Your task to perform on an android device: Clear all items from cart on costco. Image 0: 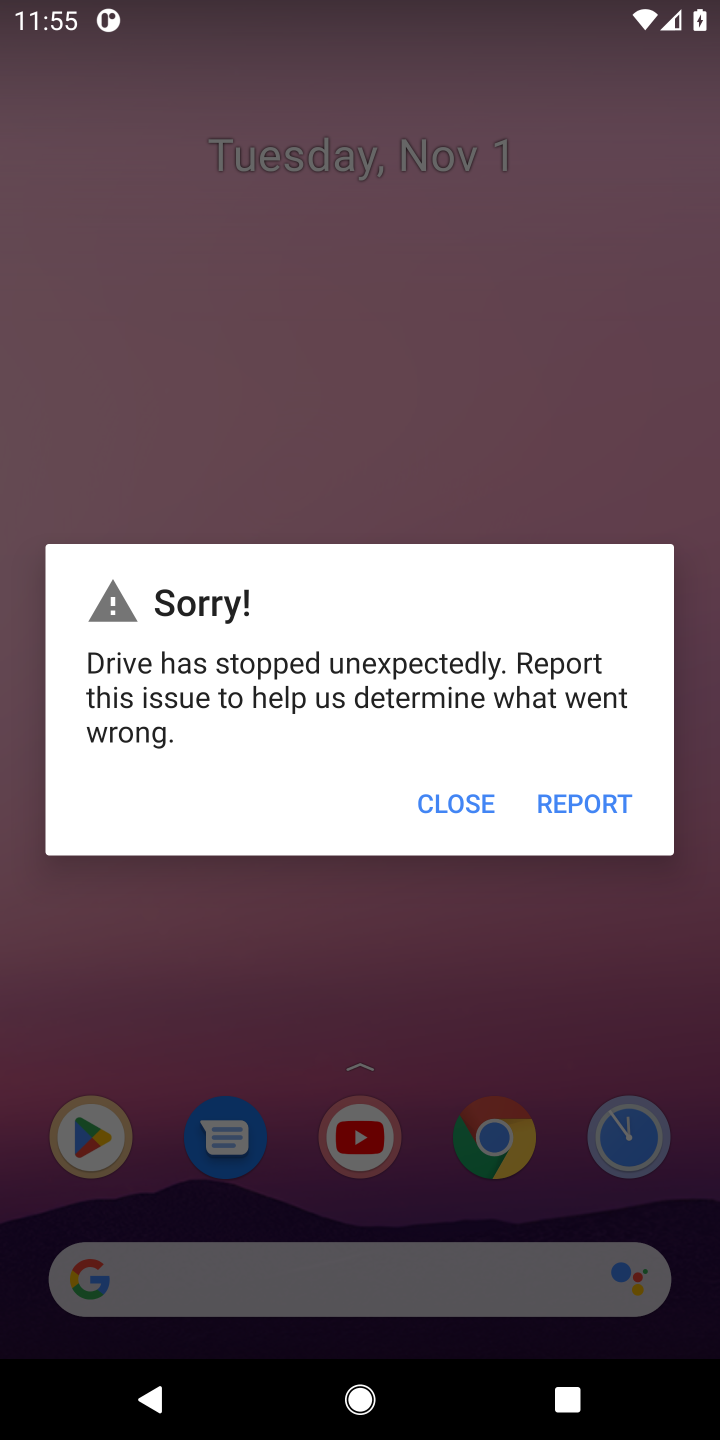
Step 0: press home button
Your task to perform on an android device: Clear all items from cart on costco. Image 1: 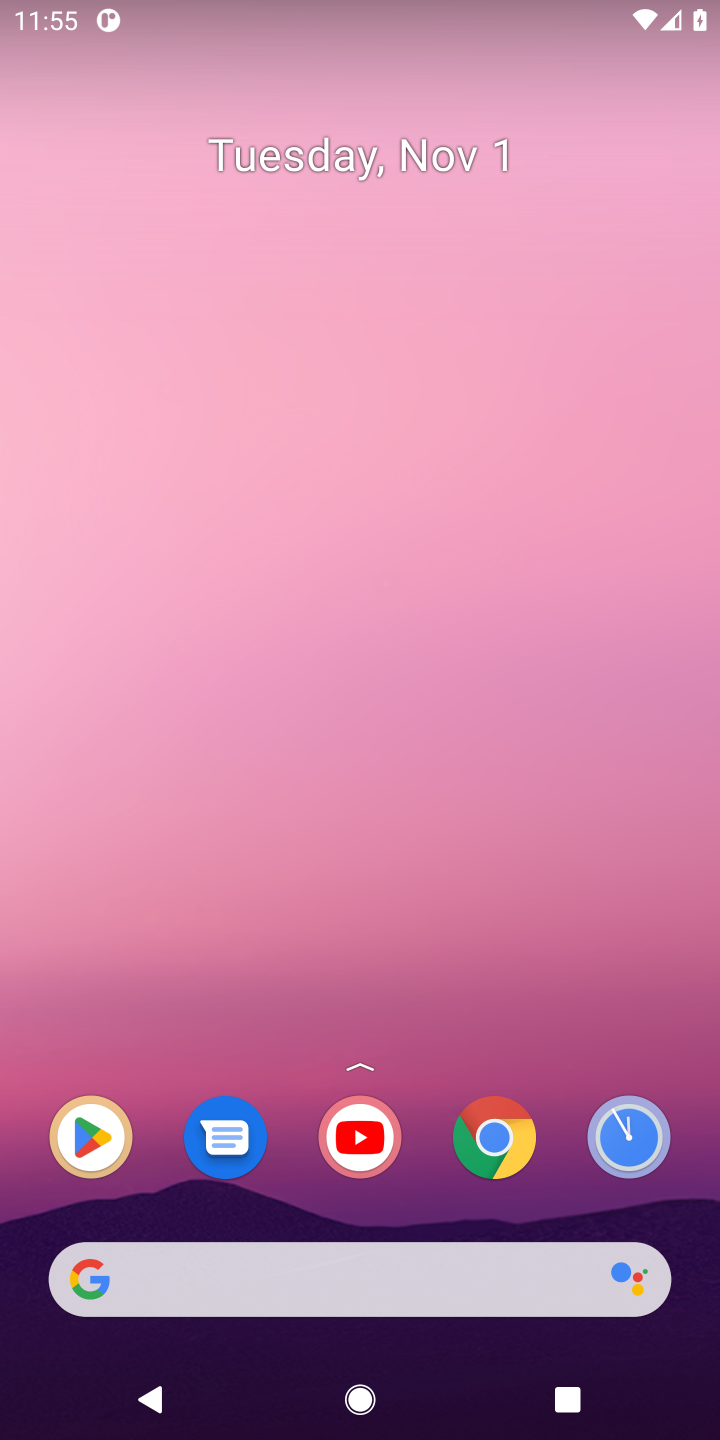
Step 1: press home button
Your task to perform on an android device: Clear all items from cart on costco. Image 2: 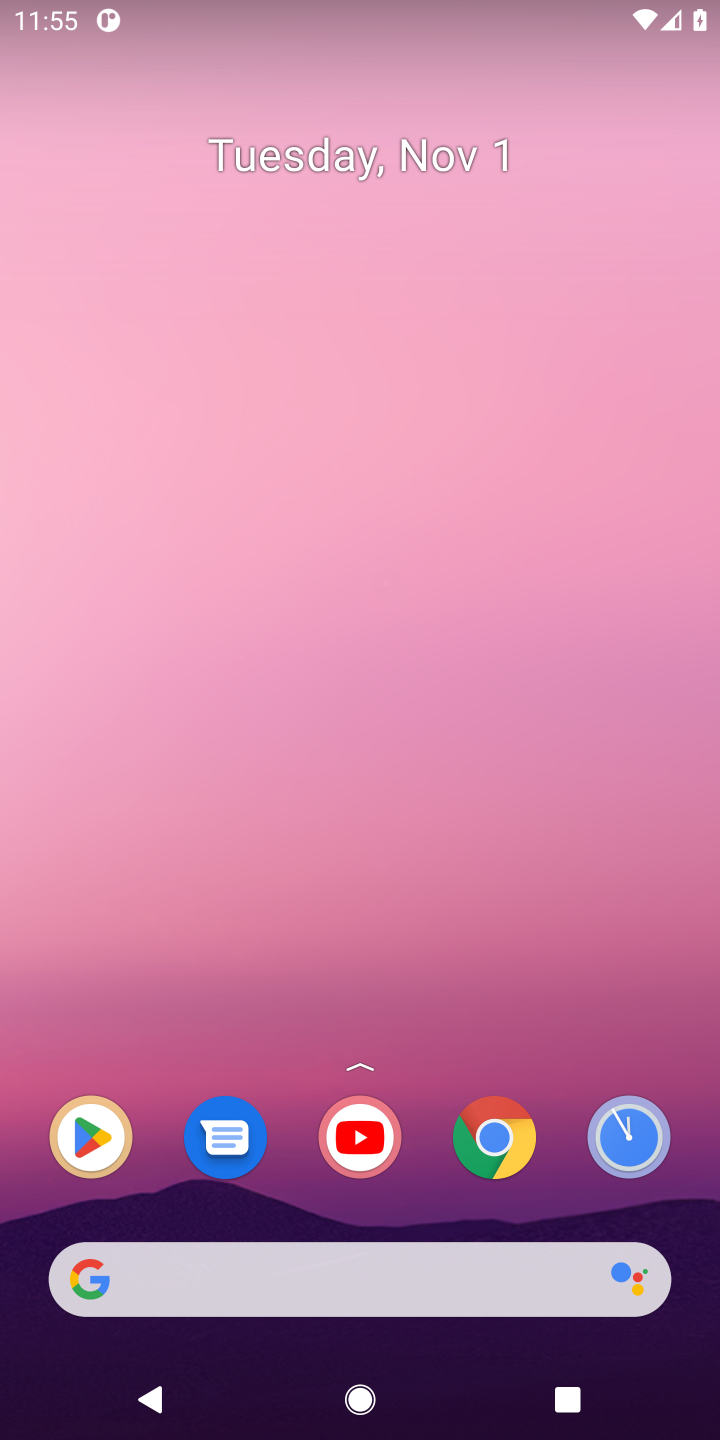
Step 2: press home button
Your task to perform on an android device: Clear all items from cart on costco. Image 3: 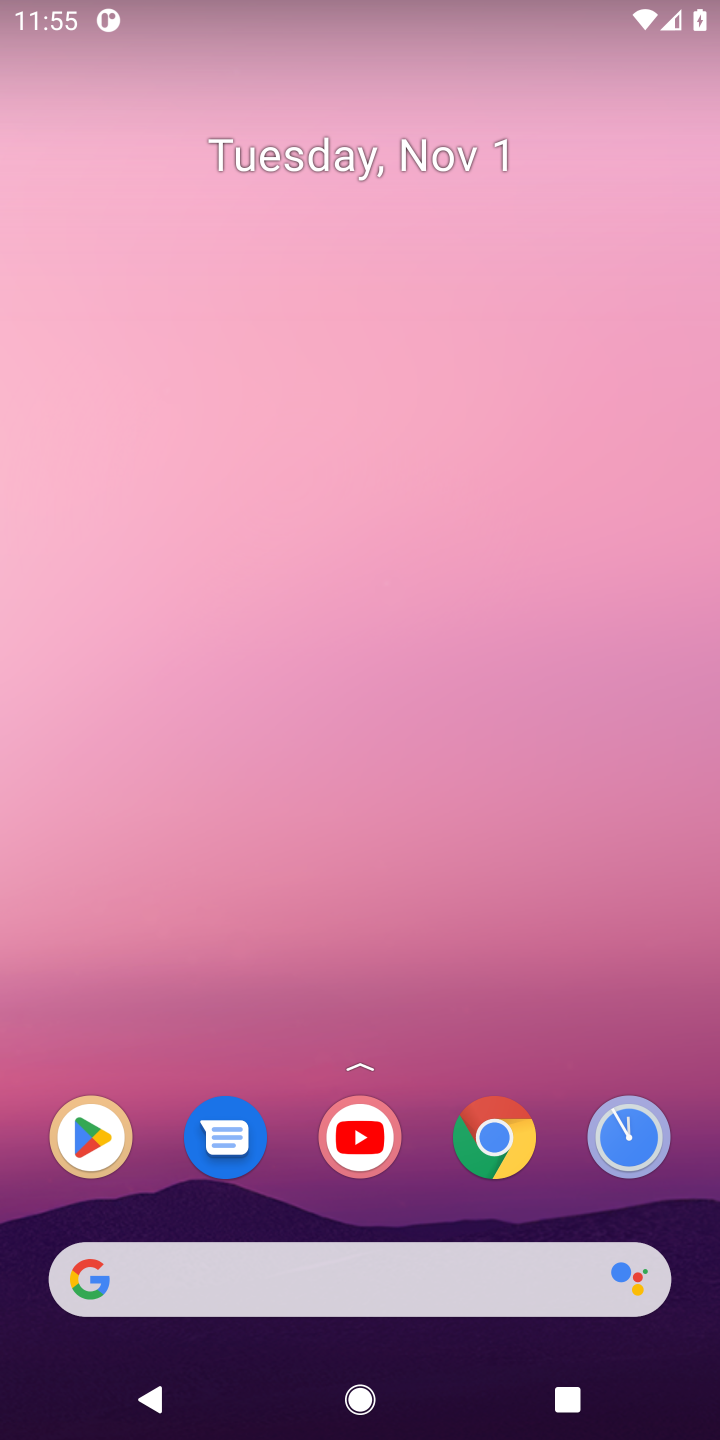
Step 3: press home button
Your task to perform on an android device: Clear all items from cart on costco. Image 4: 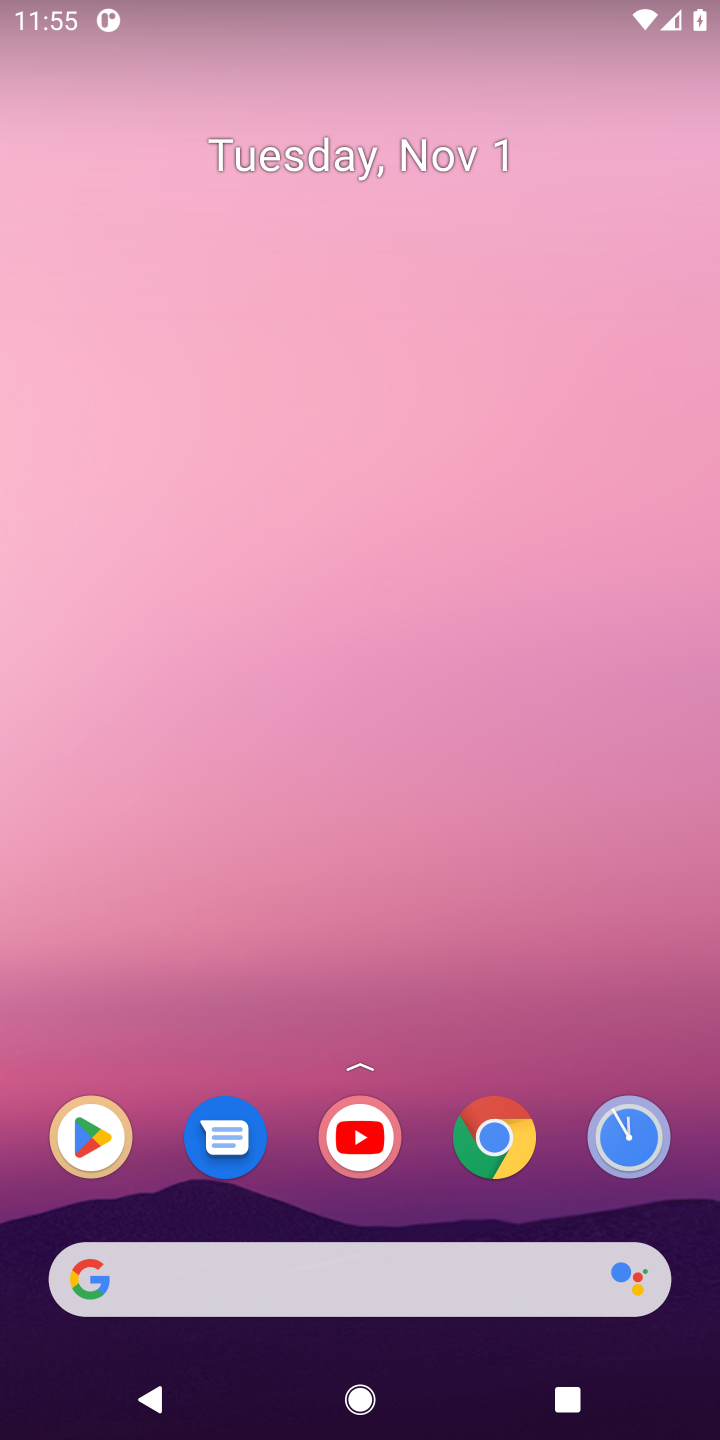
Step 4: click (250, 1273)
Your task to perform on an android device: Clear all items from cart on costco. Image 5: 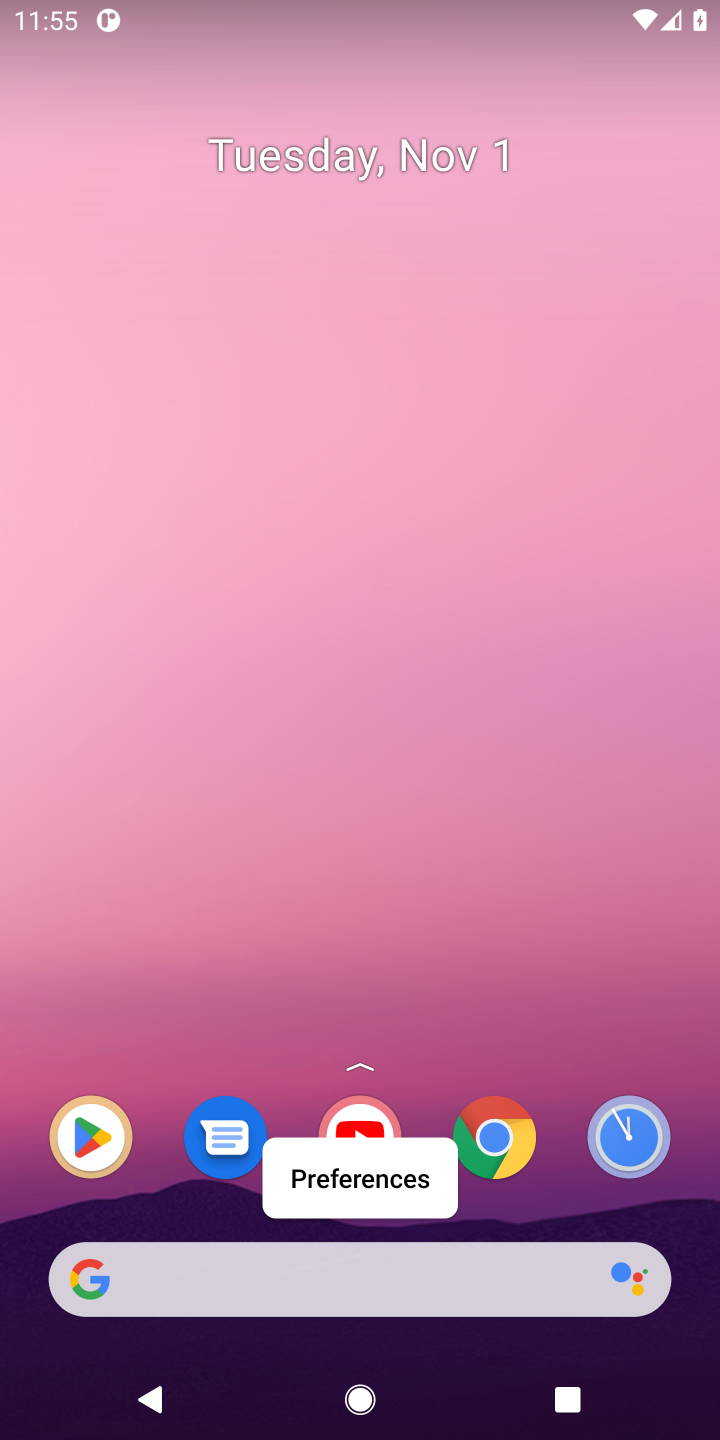
Step 5: click (250, 1273)
Your task to perform on an android device: Clear all items from cart on costco. Image 6: 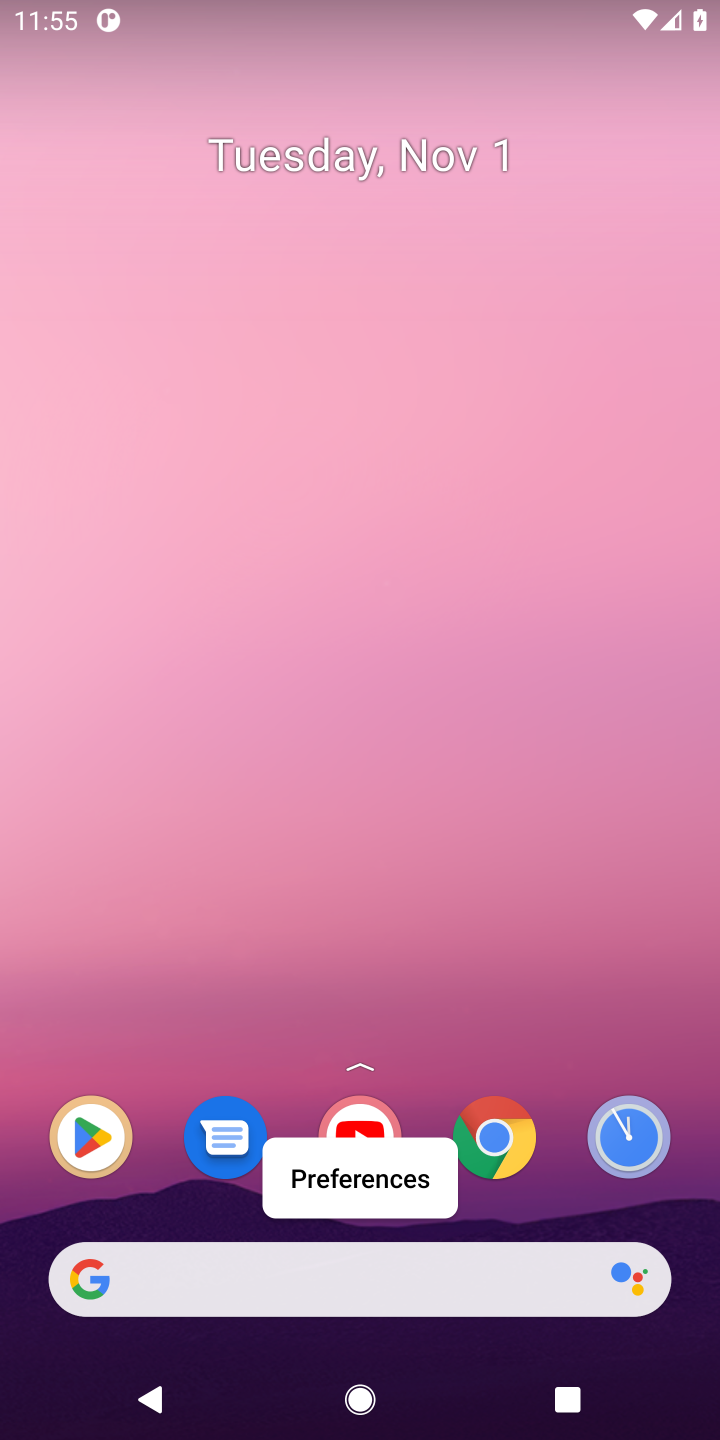
Step 6: click (230, 1263)
Your task to perform on an android device: Clear all items from cart on costco. Image 7: 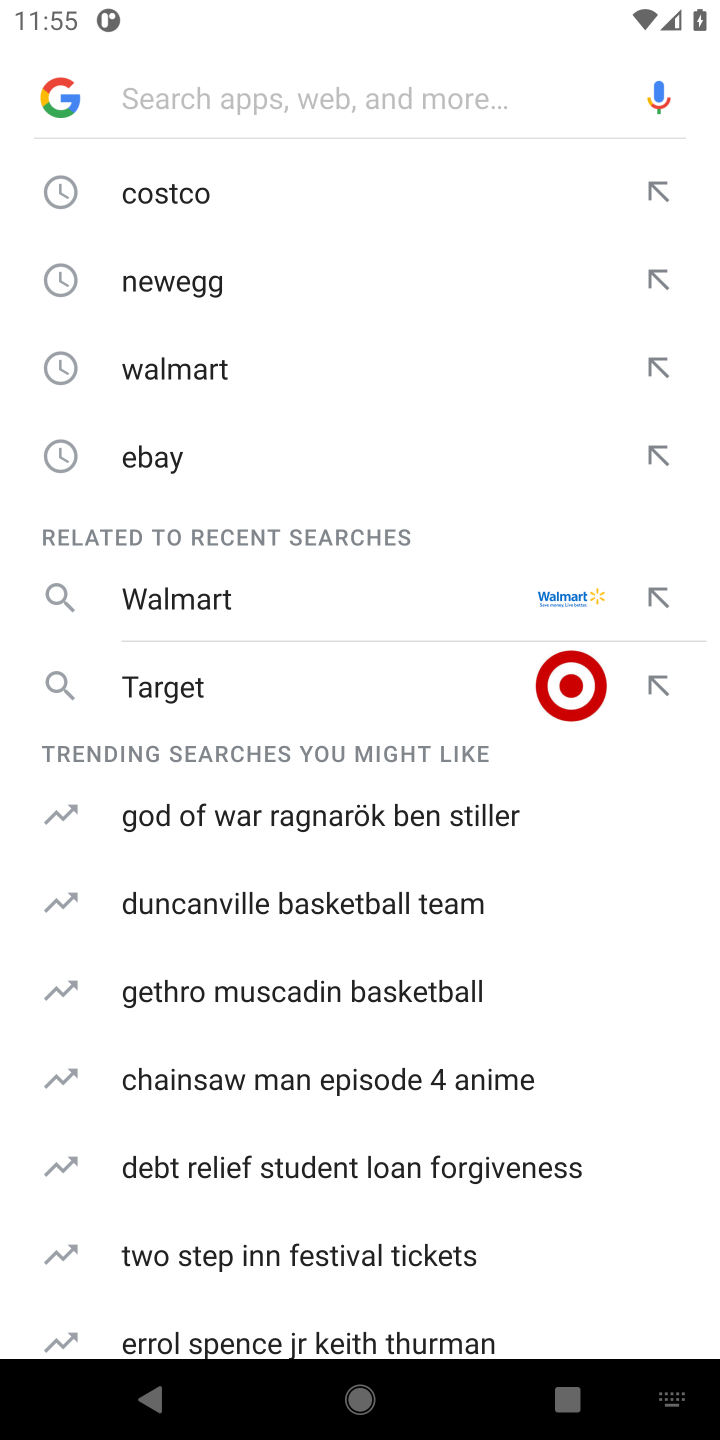
Step 7: click (211, 223)
Your task to perform on an android device: Clear all items from cart on costco. Image 8: 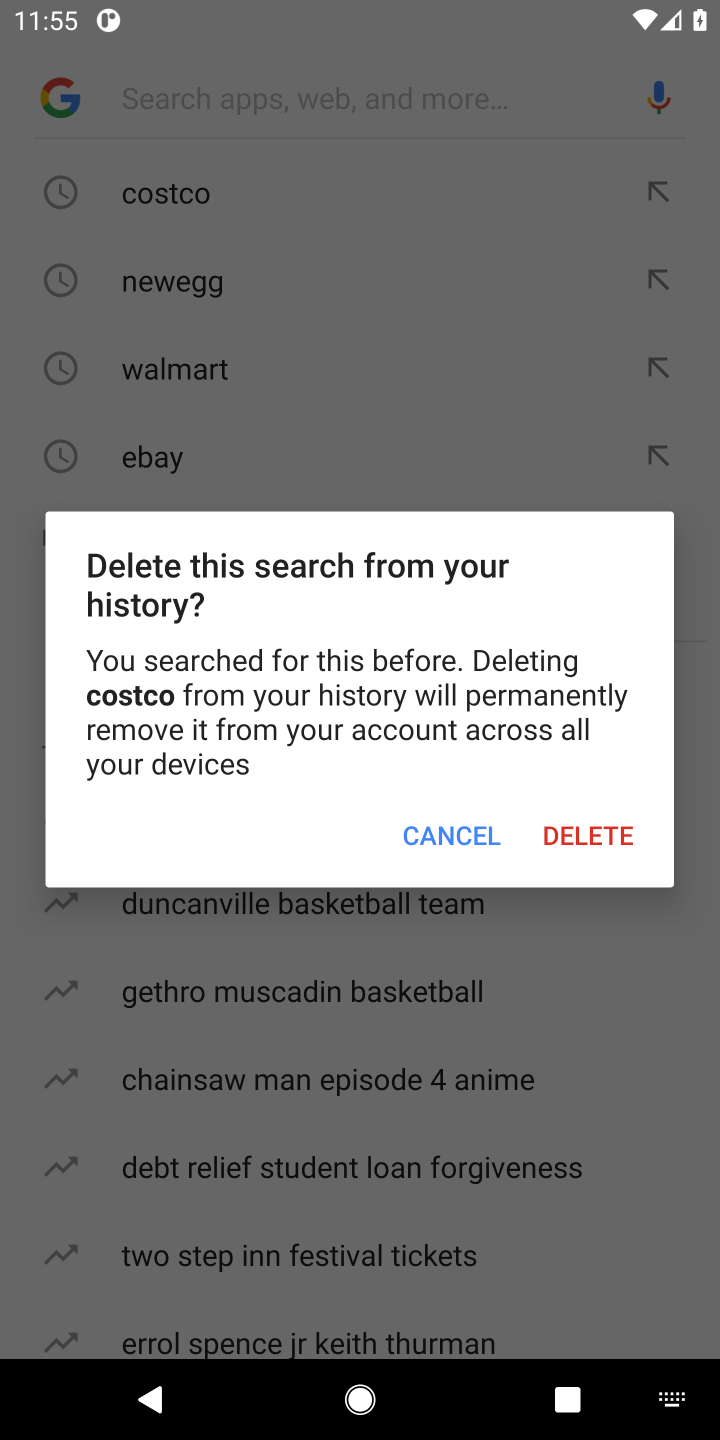
Step 8: click (494, 835)
Your task to perform on an android device: Clear all items from cart on costco. Image 9: 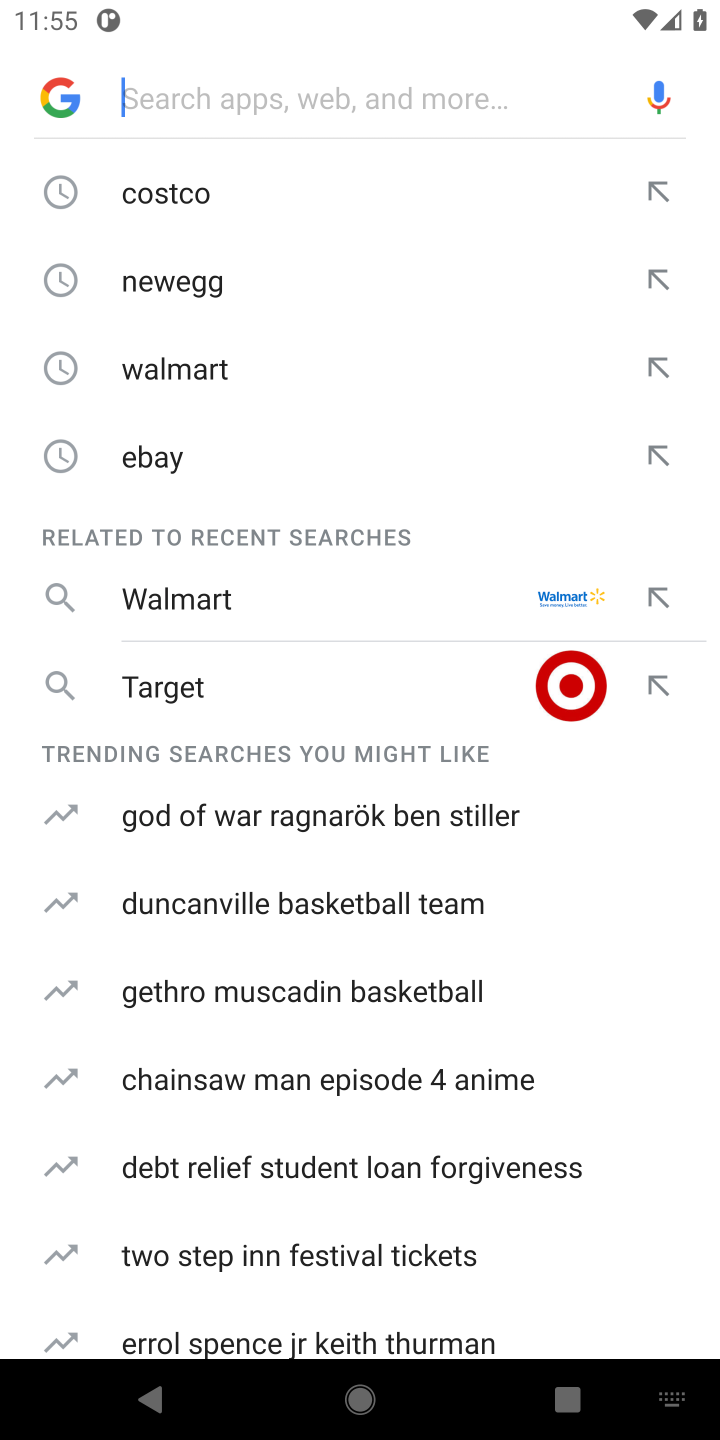
Step 9: click (280, 211)
Your task to perform on an android device: Clear all items from cart on costco. Image 10: 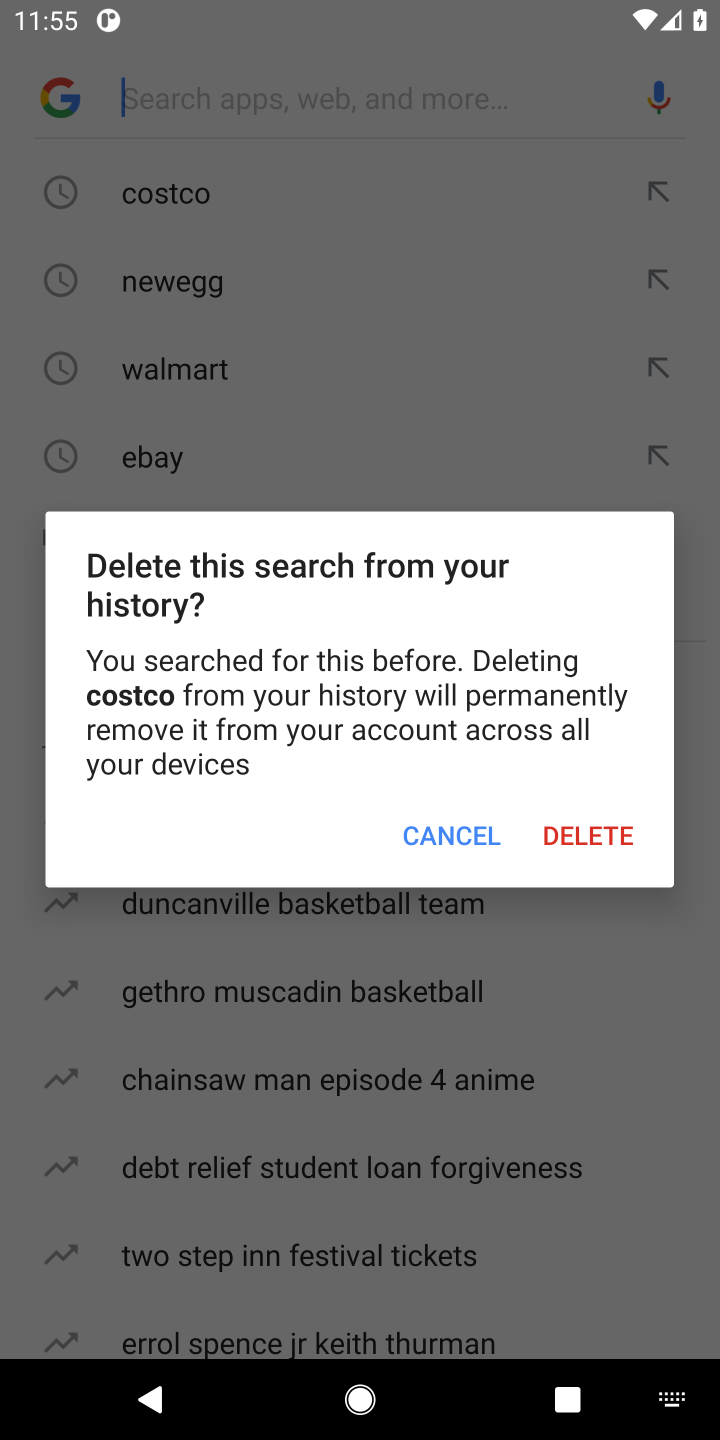
Step 10: click (451, 821)
Your task to perform on an android device: Clear all items from cart on costco. Image 11: 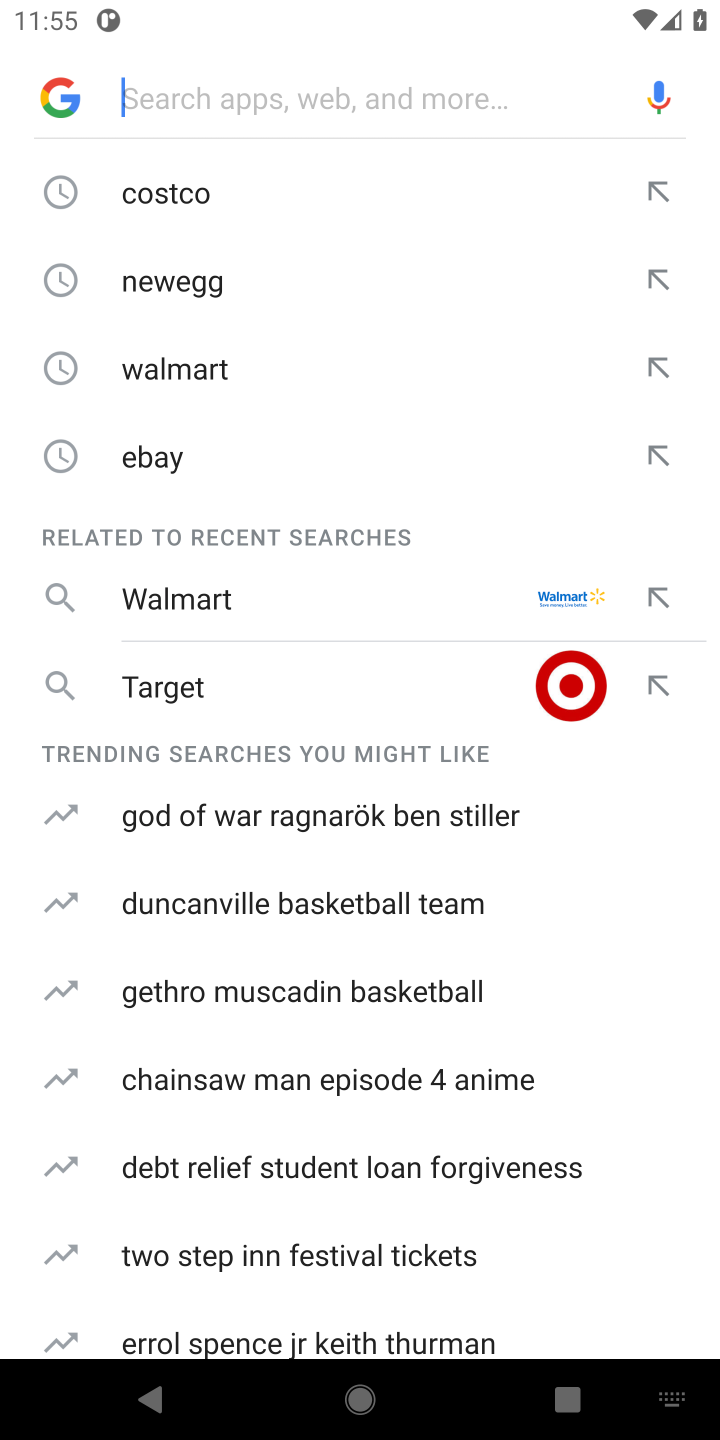
Step 11: type "costco."
Your task to perform on an android device: Clear all items from cart on costco. Image 12: 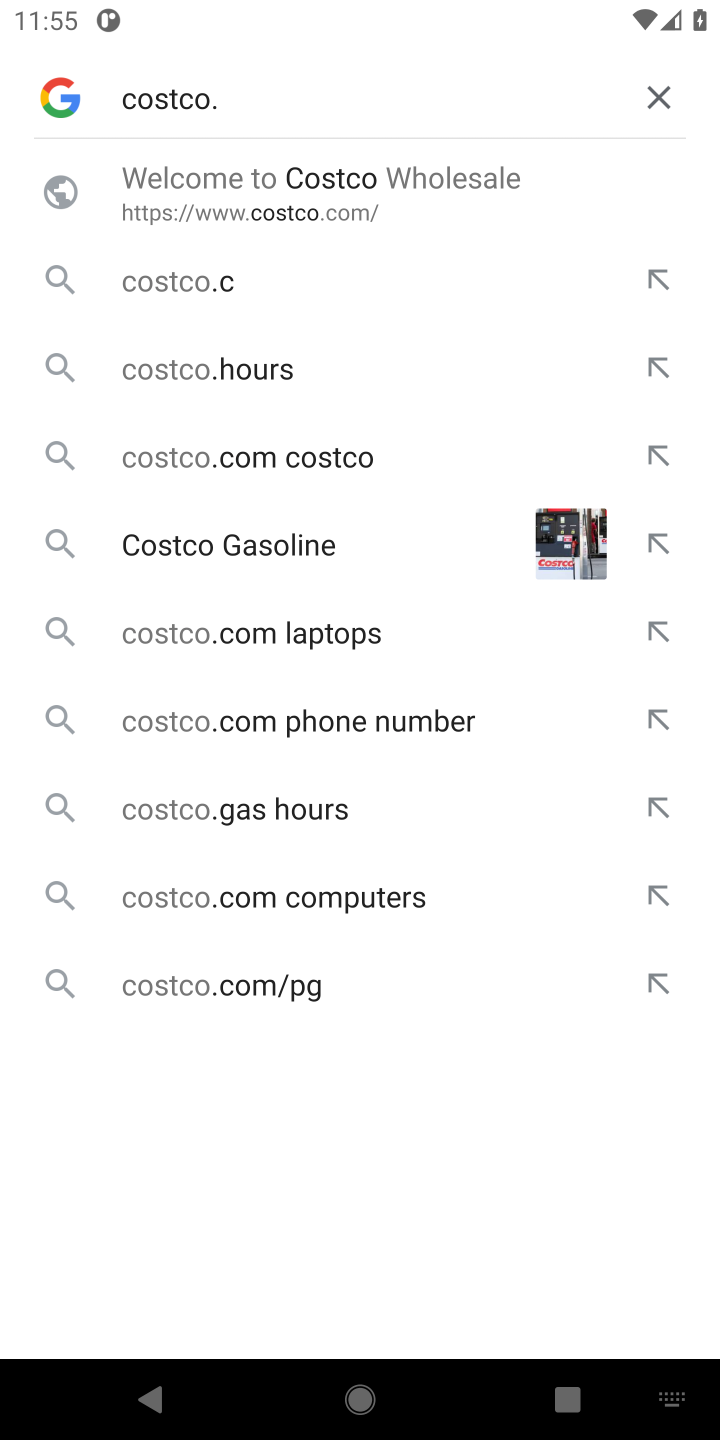
Step 12: type ""
Your task to perform on an android device: Clear all items from cart on costco. Image 13: 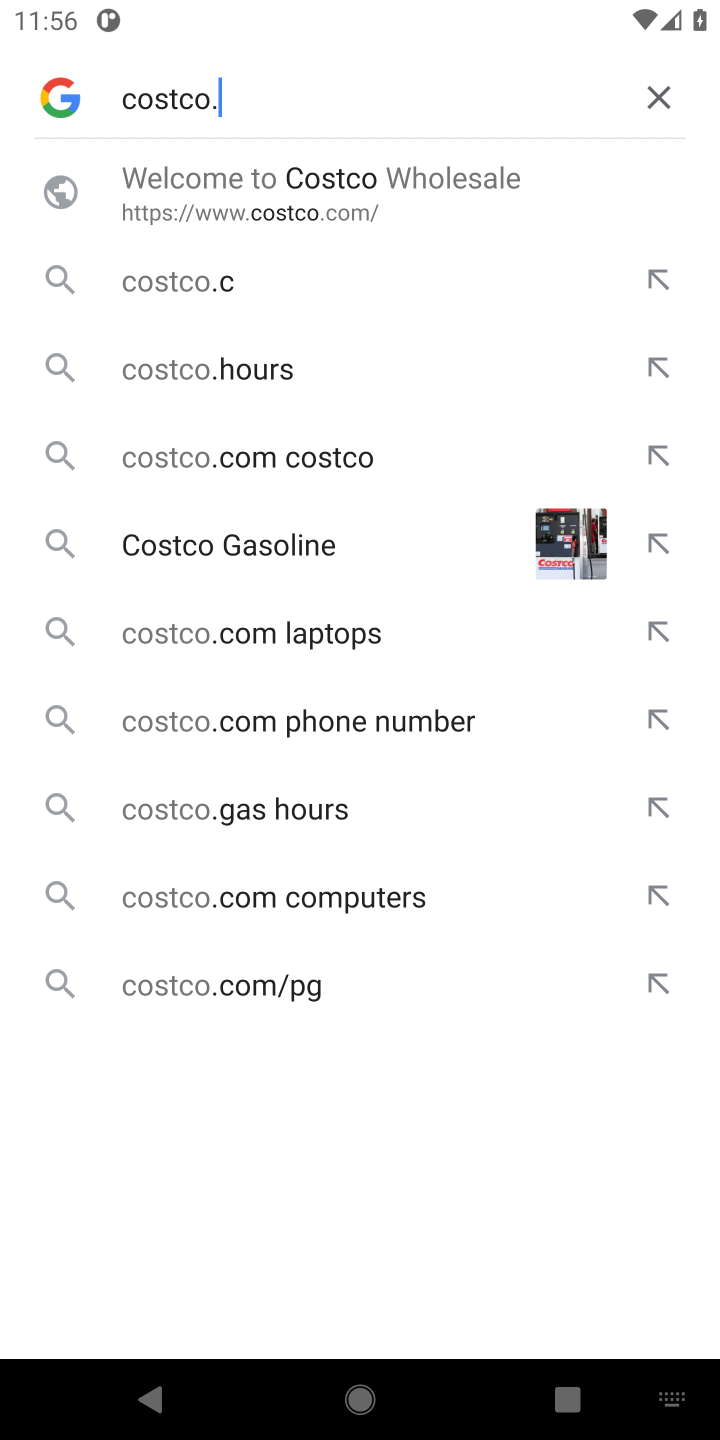
Step 13: click (289, 230)
Your task to perform on an android device: Clear all items from cart on costco. Image 14: 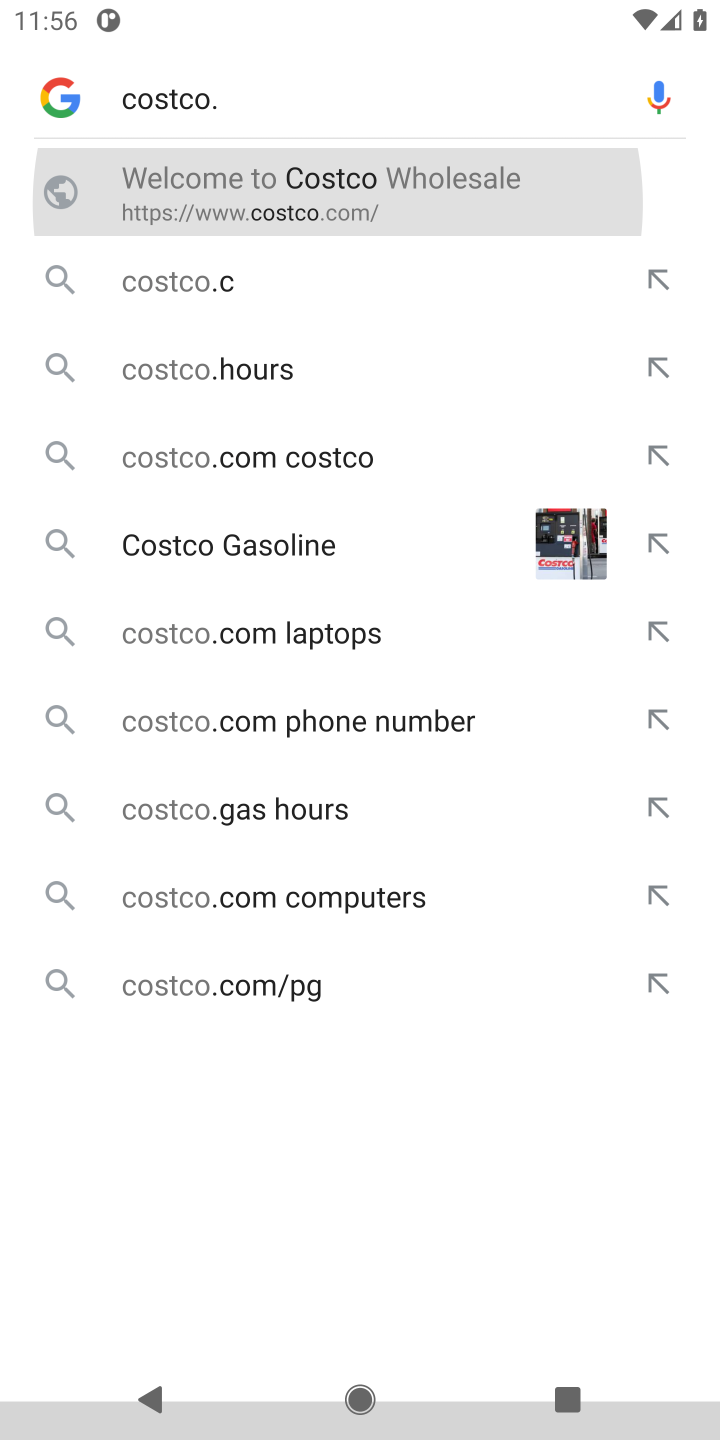
Step 14: click (299, 186)
Your task to perform on an android device: Clear all items from cart on costco. Image 15: 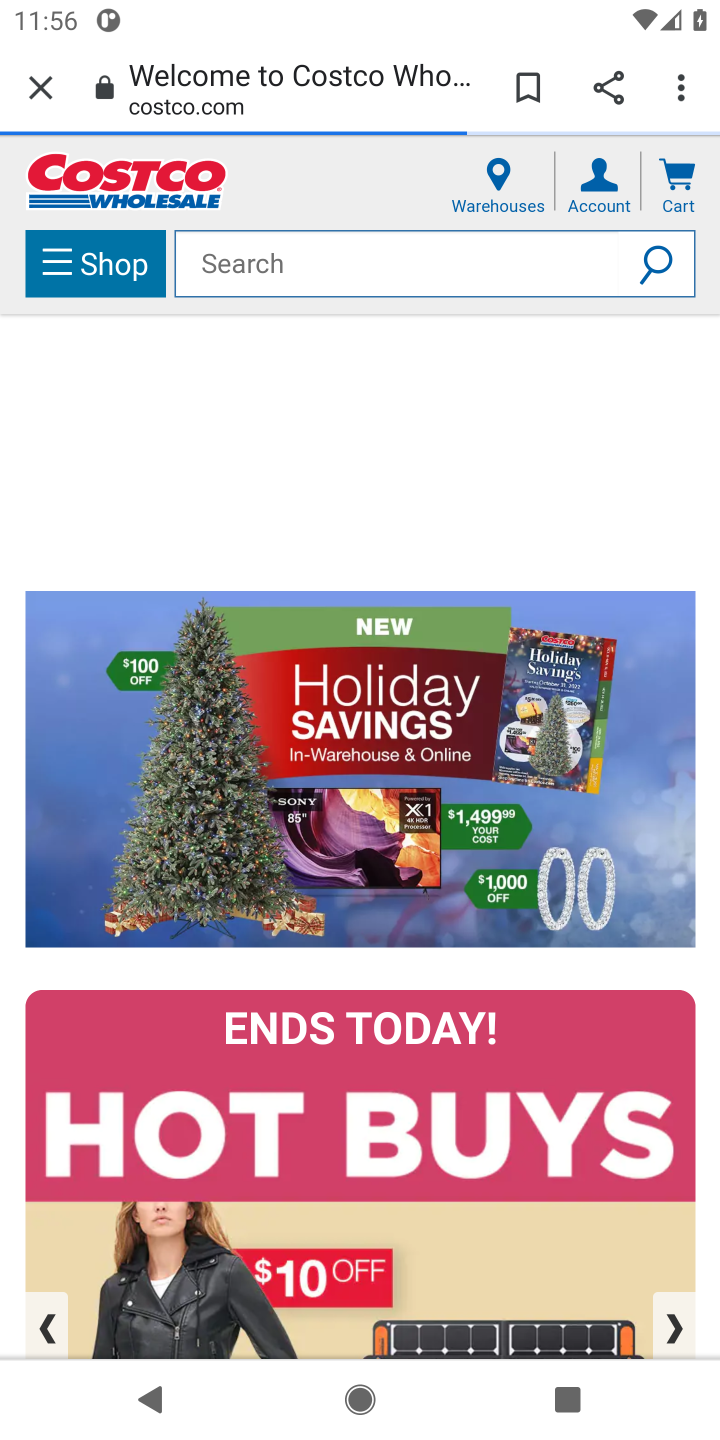
Step 15: click (354, 256)
Your task to perform on an android device: Clear all items from cart on costco. Image 16: 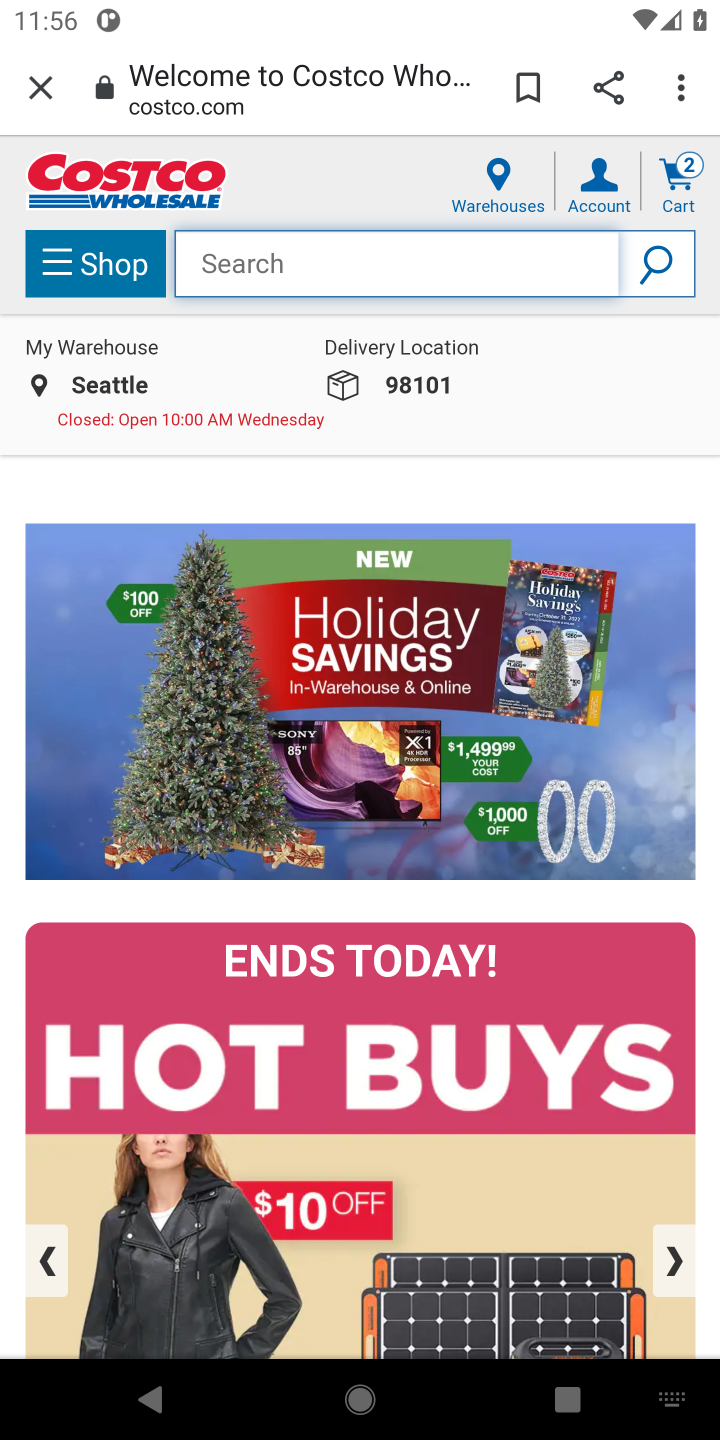
Step 16: click (684, 182)
Your task to perform on an android device: Clear all items from cart on costco. Image 17: 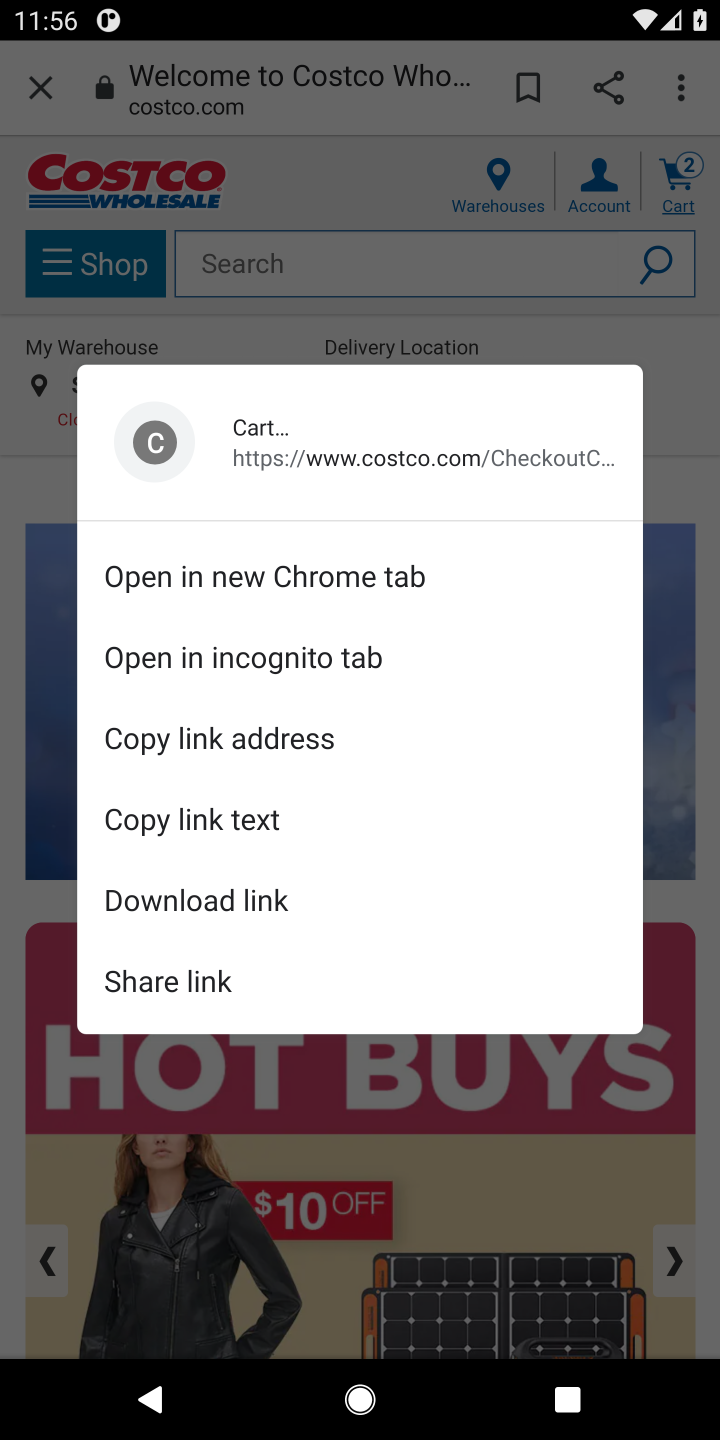
Step 17: click (684, 182)
Your task to perform on an android device: Clear all items from cart on costco. Image 18: 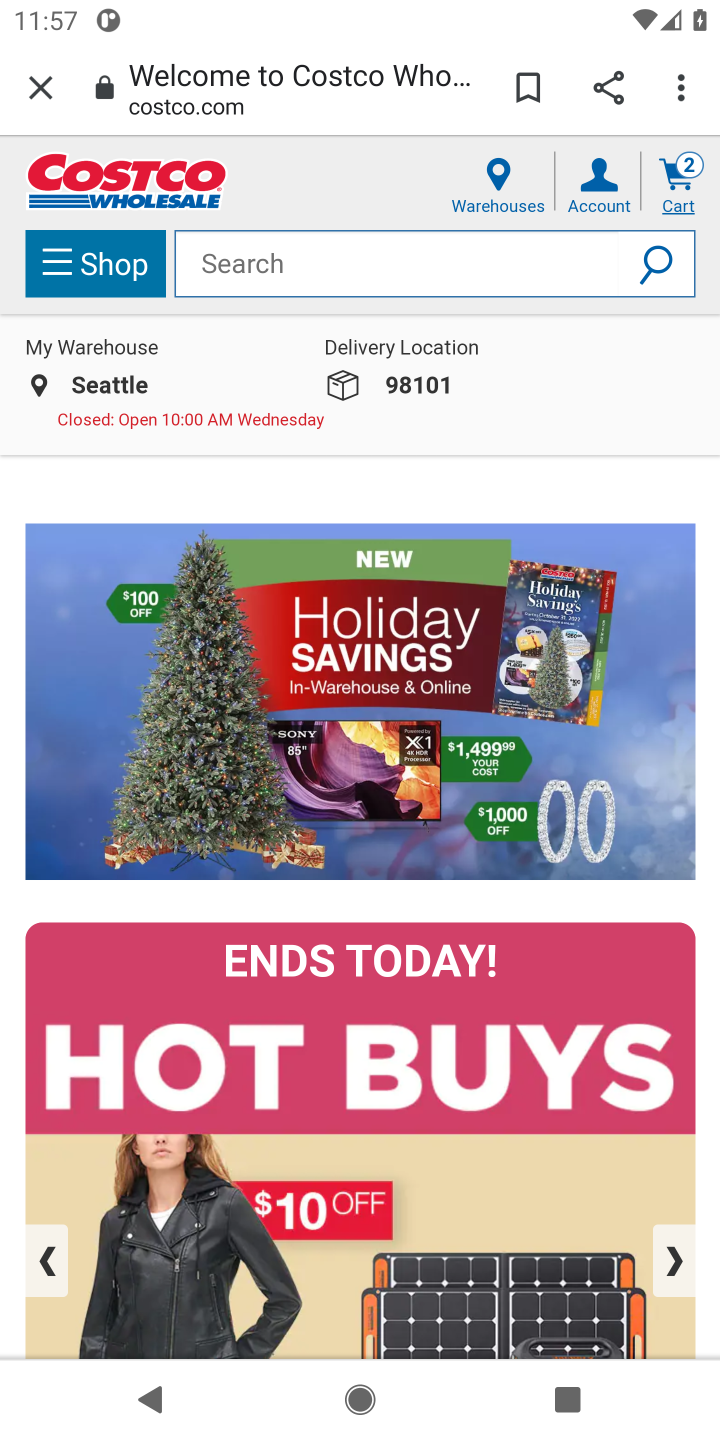
Step 18: click (685, 179)
Your task to perform on an android device: Clear all items from cart on costco. Image 19: 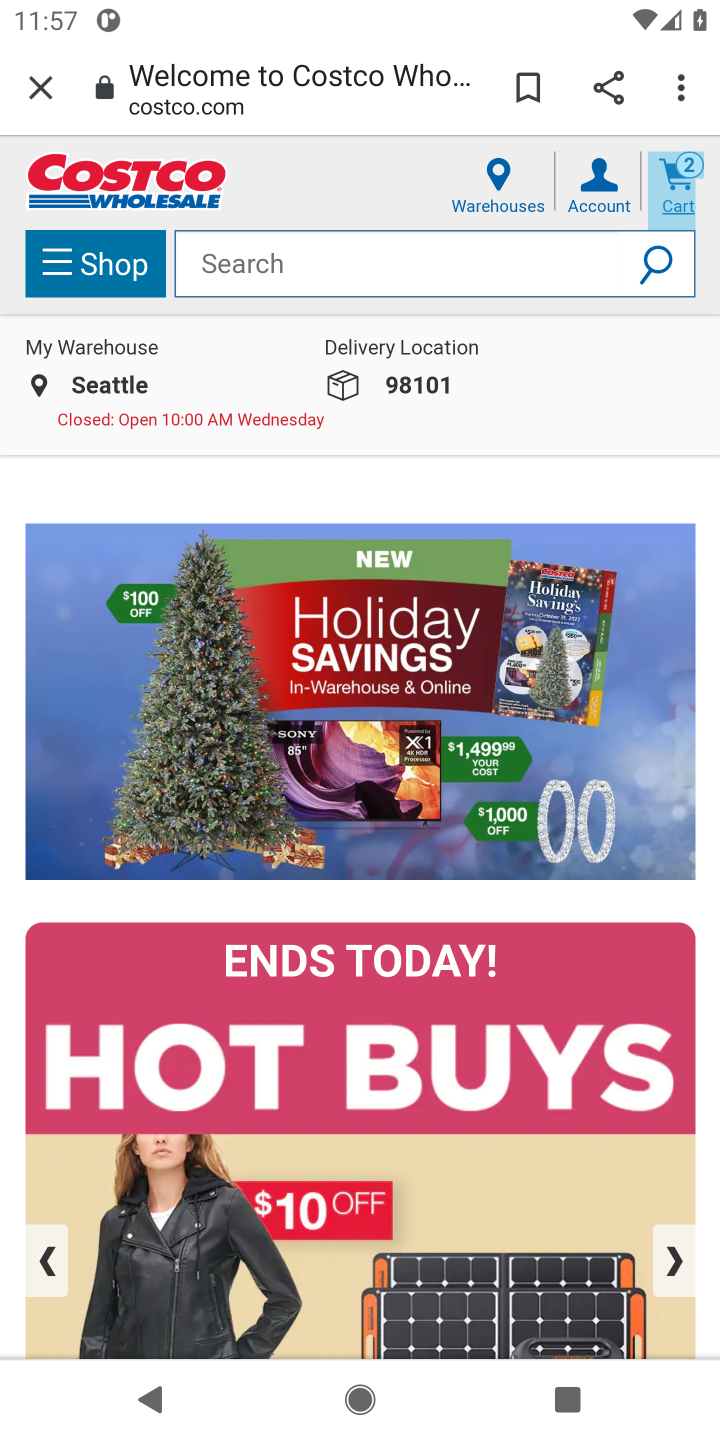
Step 19: click (687, 159)
Your task to perform on an android device: Clear all items from cart on costco. Image 20: 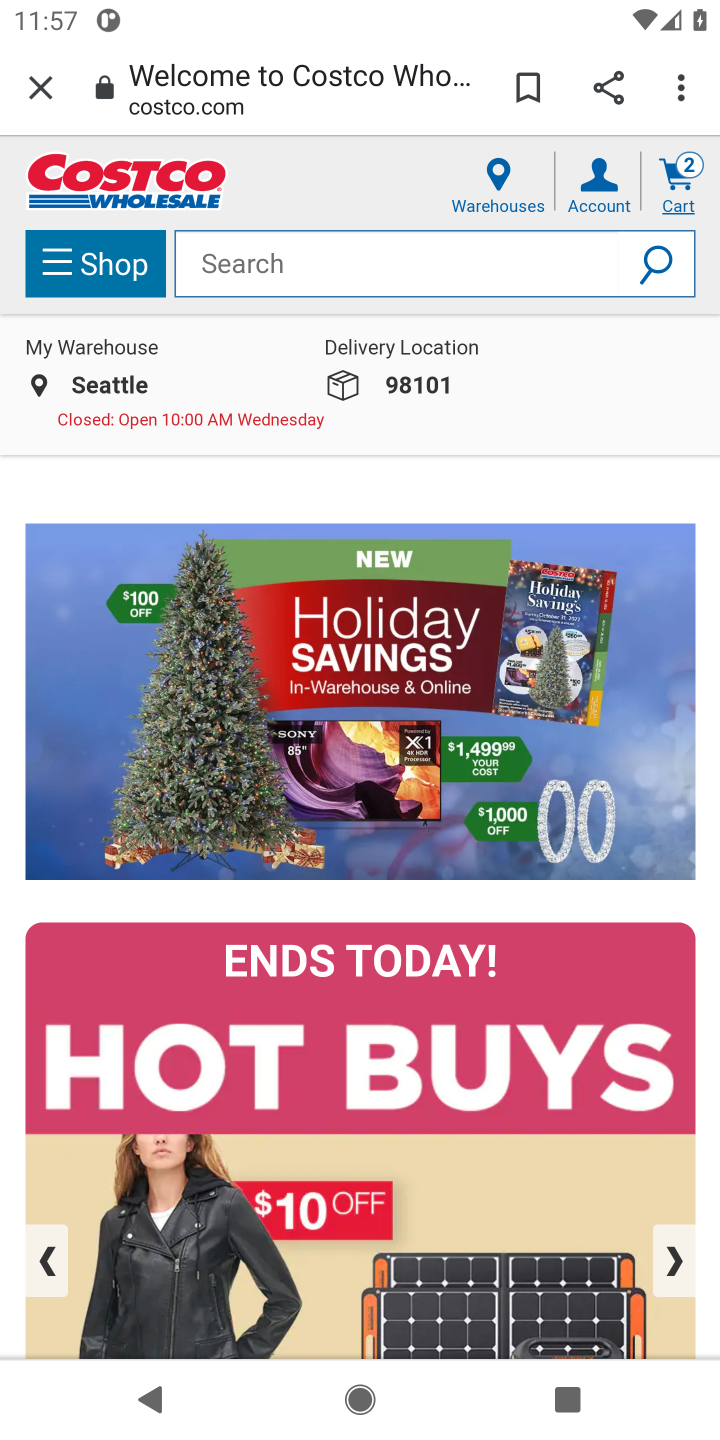
Step 20: click (676, 171)
Your task to perform on an android device: Clear all items from cart on costco. Image 21: 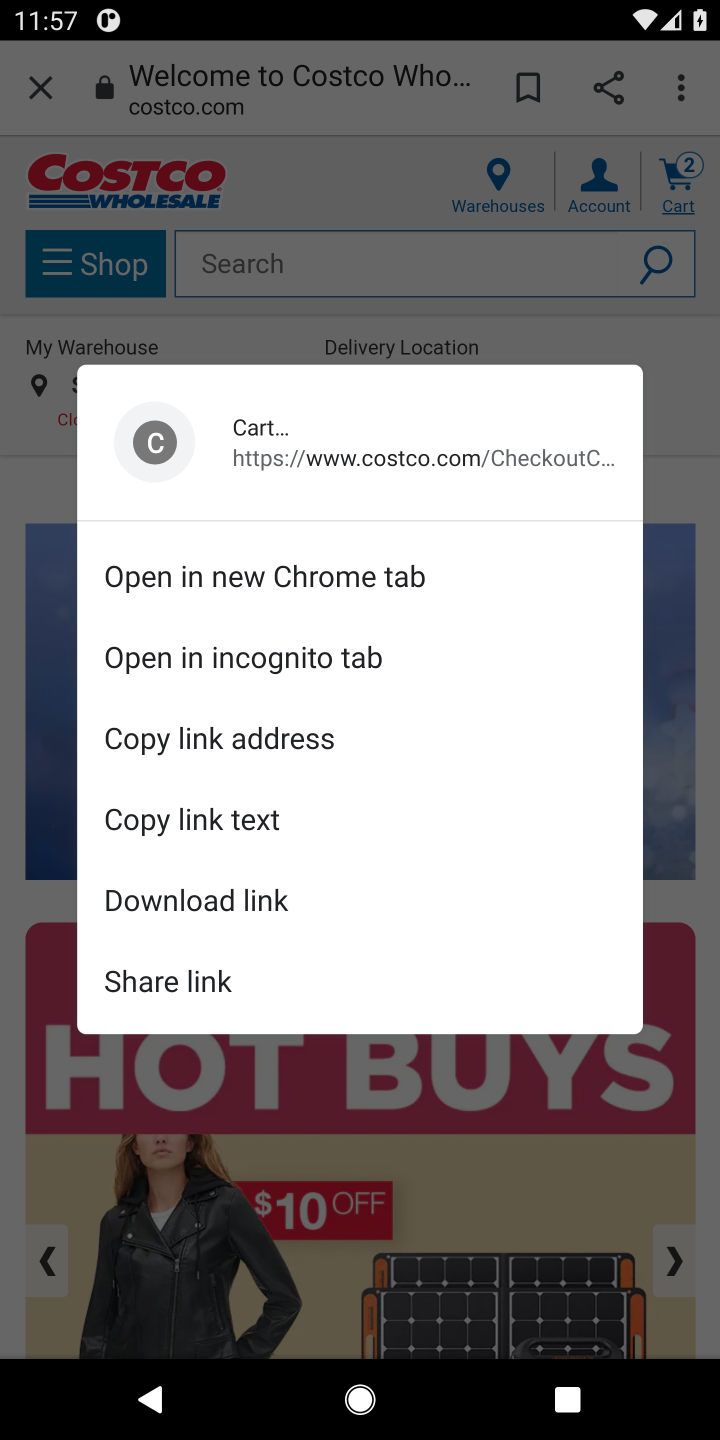
Step 21: click (702, 461)
Your task to perform on an android device: Clear all items from cart on costco. Image 22: 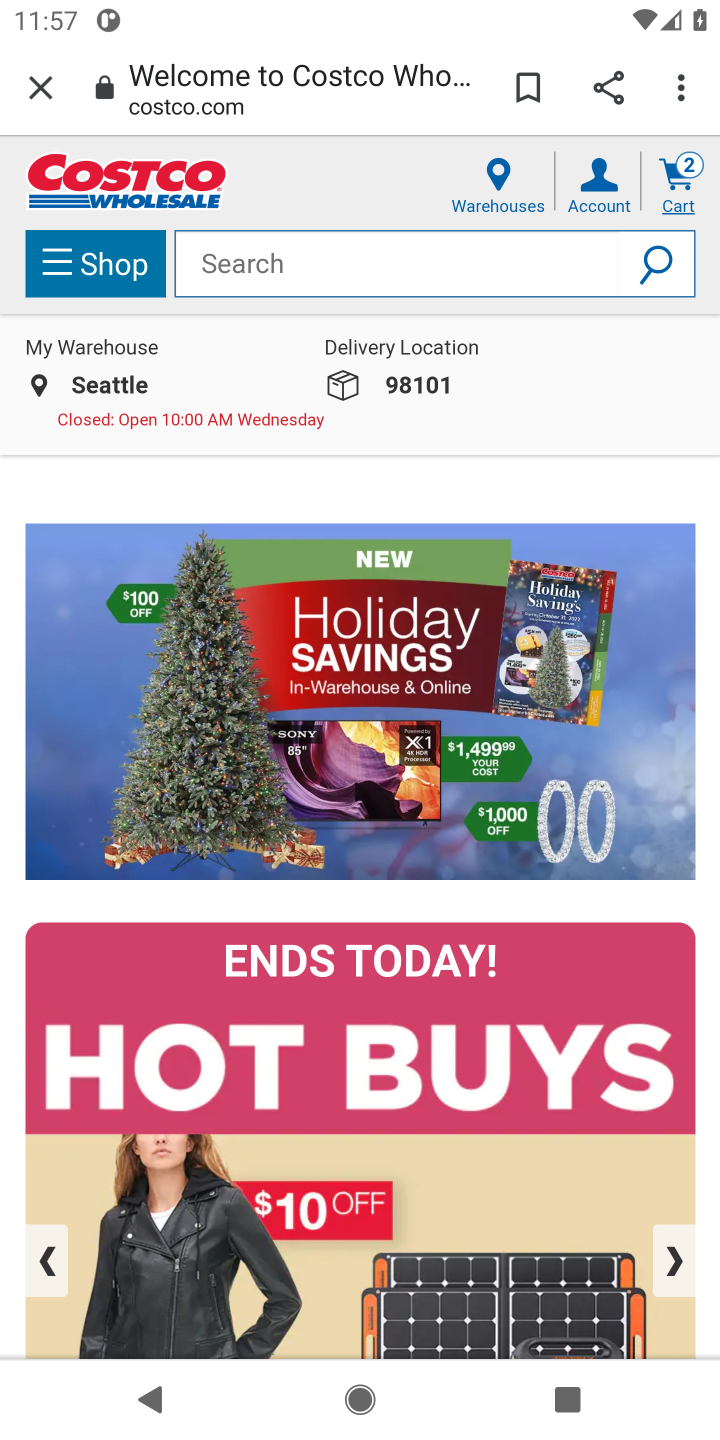
Step 22: click (673, 178)
Your task to perform on an android device: Clear all items from cart on costco. Image 23: 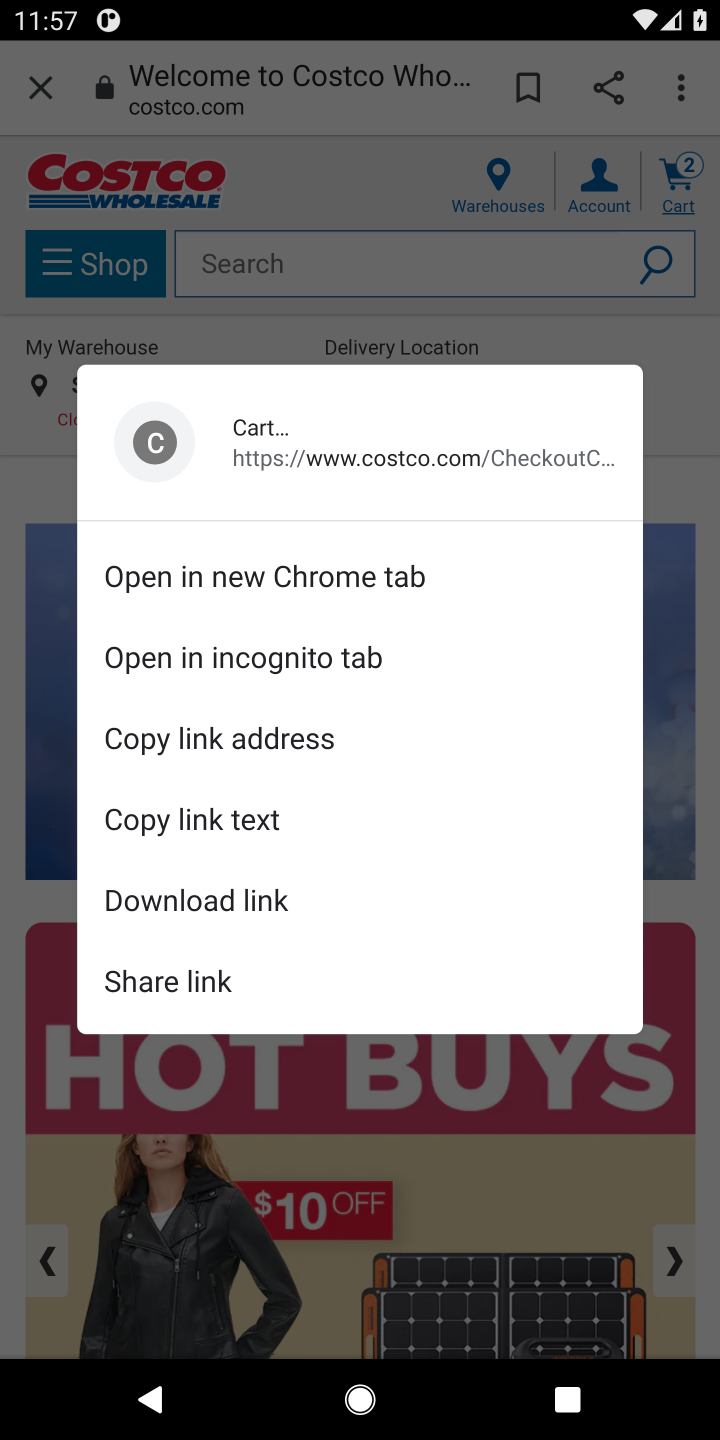
Step 23: click (660, 495)
Your task to perform on an android device: Clear all items from cart on costco. Image 24: 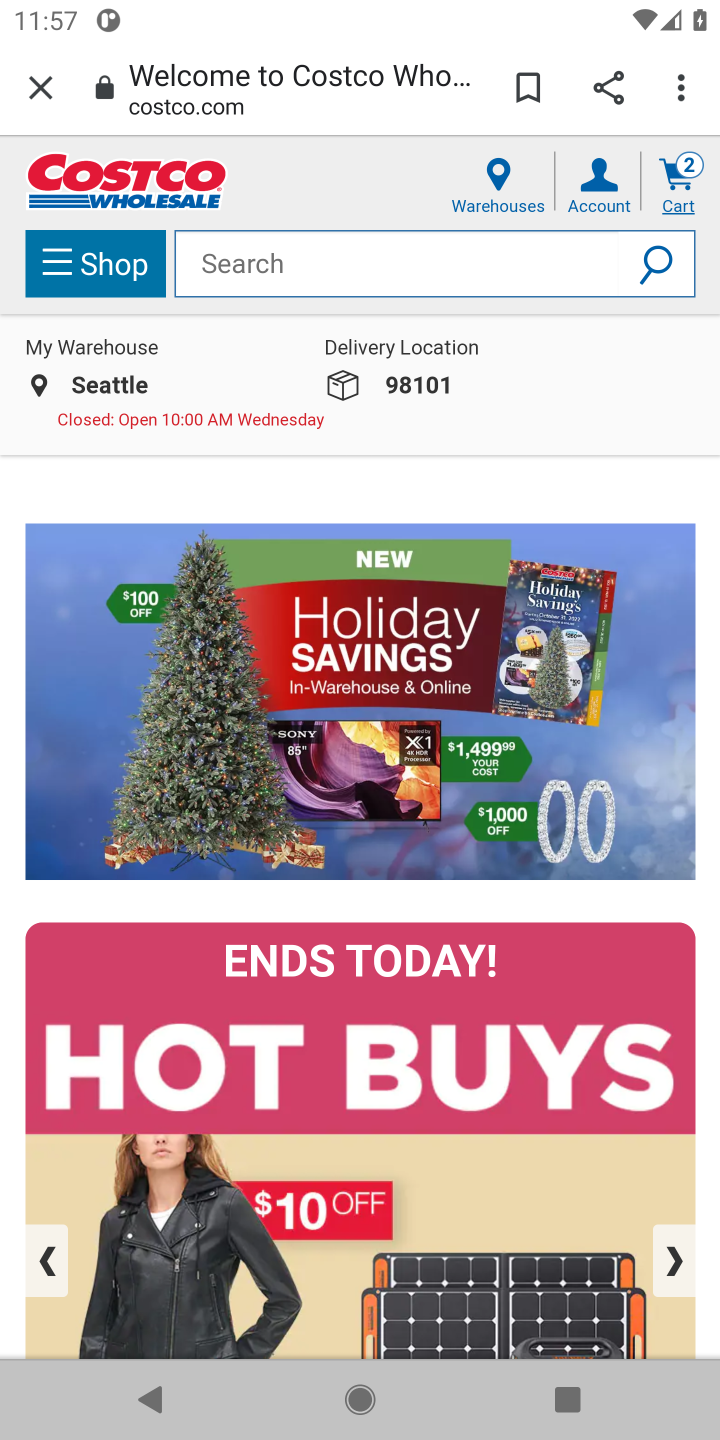
Step 24: click (676, 209)
Your task to perform on an android device: Clear all items from cart on costco. Image 25: 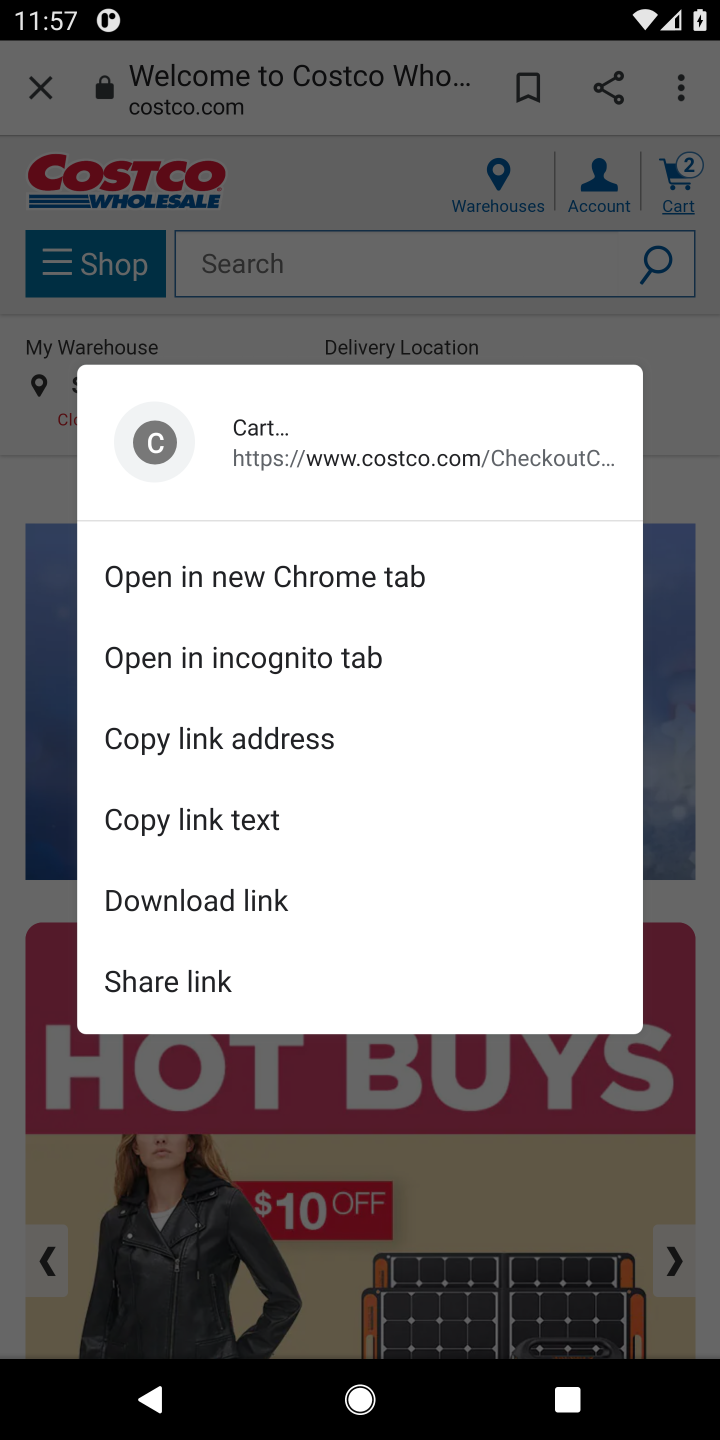
Step 25: click (673, 403)
Your task to perform on an android device: Clear all items from cart on costco. Image 26: 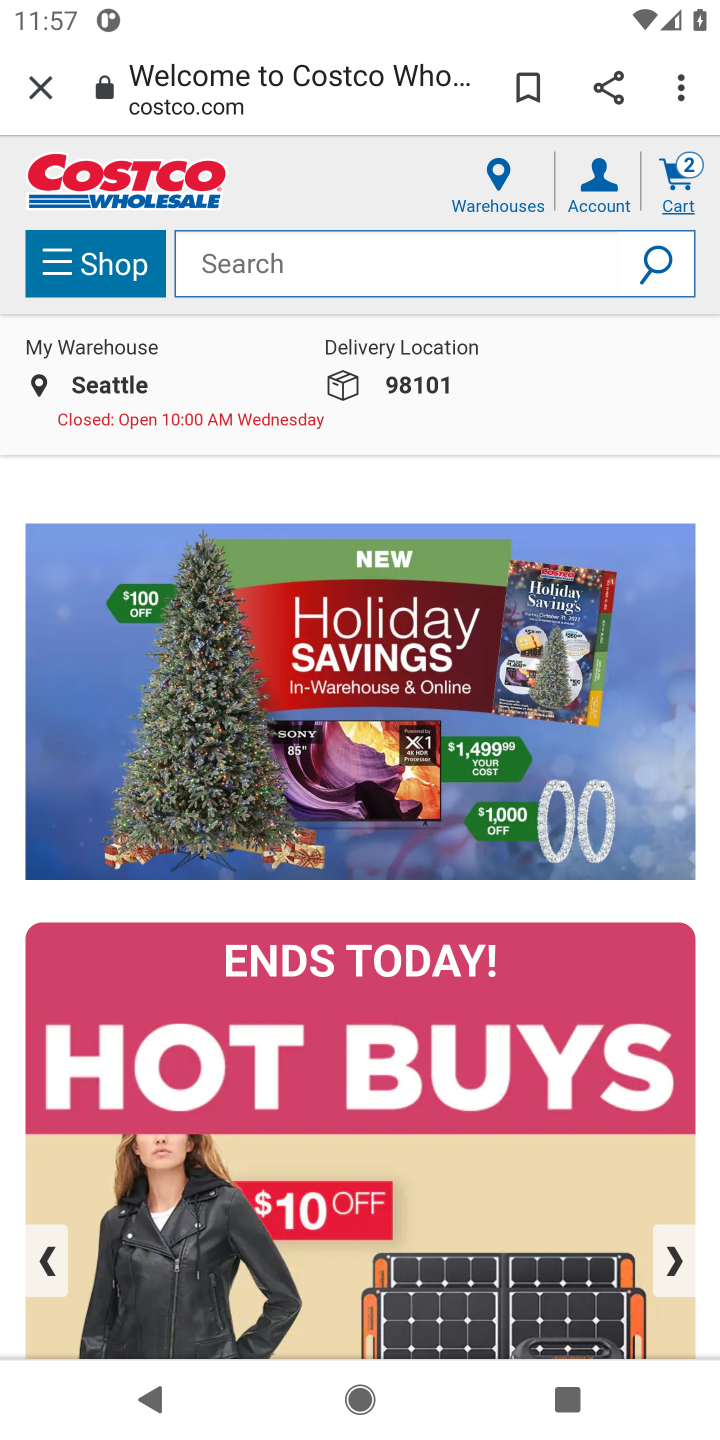
Step 26: click (674, 185)
Your task to perform on an android device: Clear all items from cart on costco. Image 27: 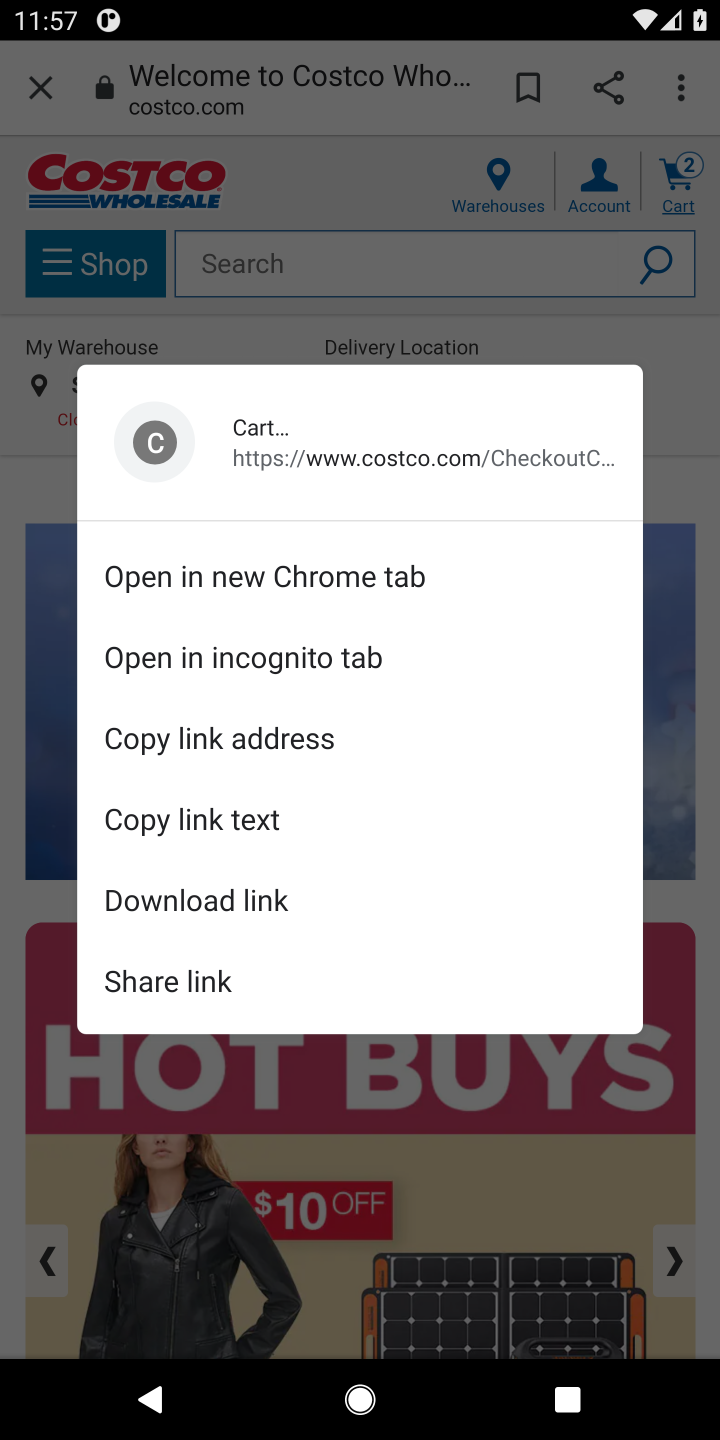
Step 27: click (683, 207)
Your task to perform on an android device: Clear all items from cart on costco. Image 28: 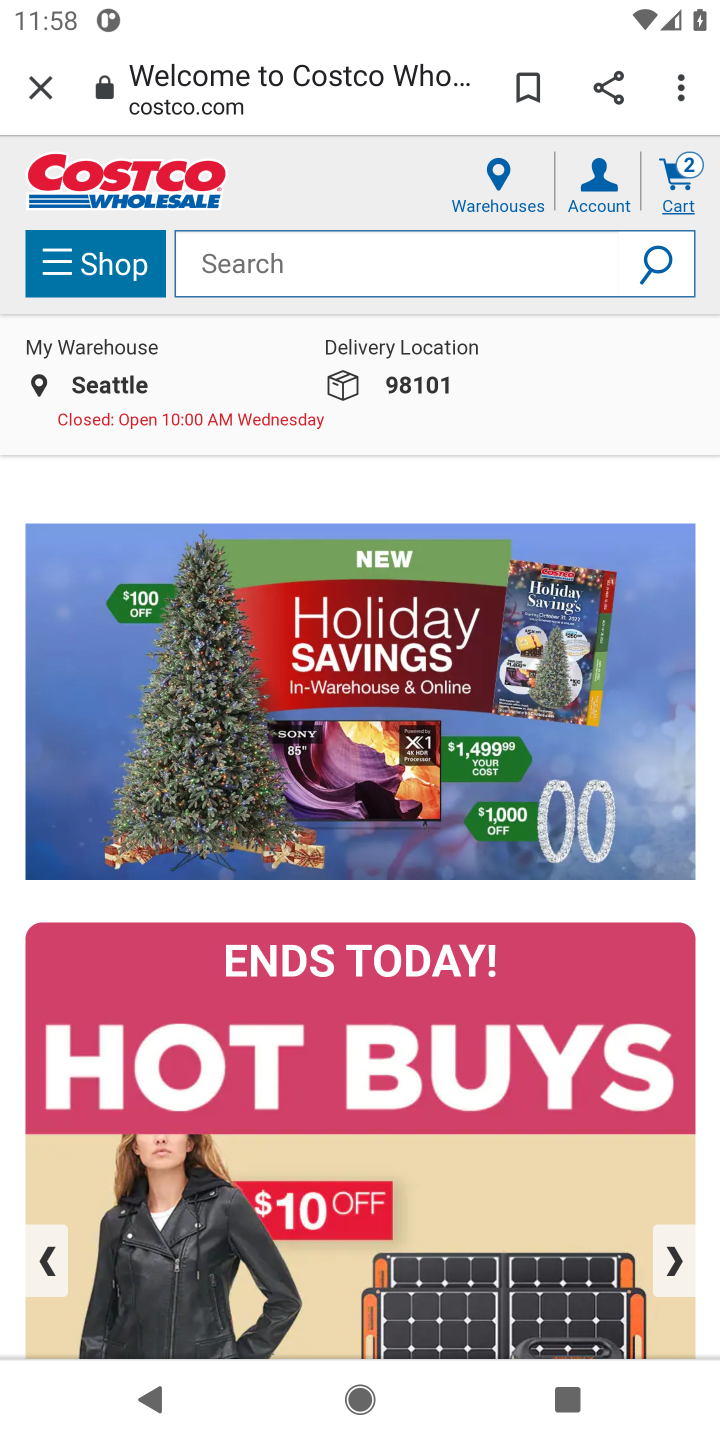
Step 28: click (683, 180)
Your task to perform on an android device: Clear all items from cart on costco. Image 29: 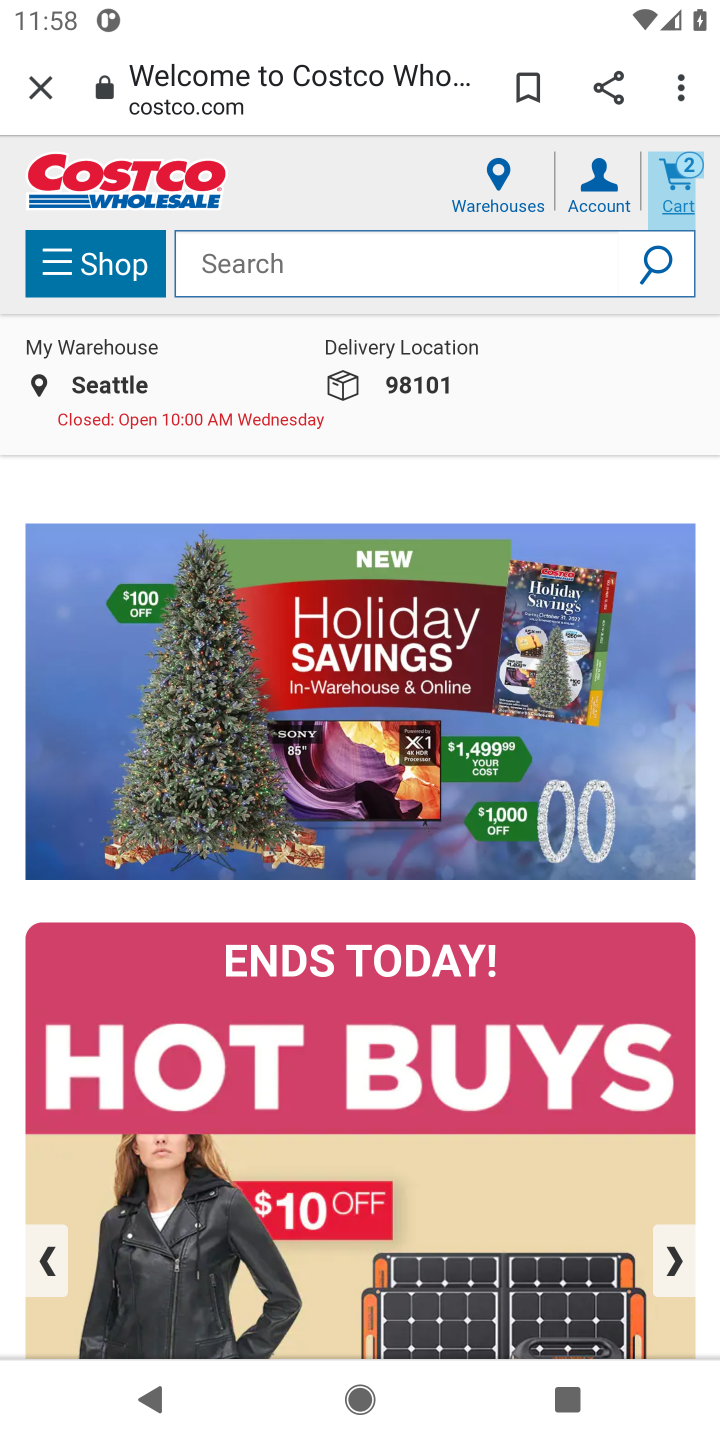
Step 29: click (683, 178)
Your task to perform on an android device: Clear all items from cart on costco. Image 30: 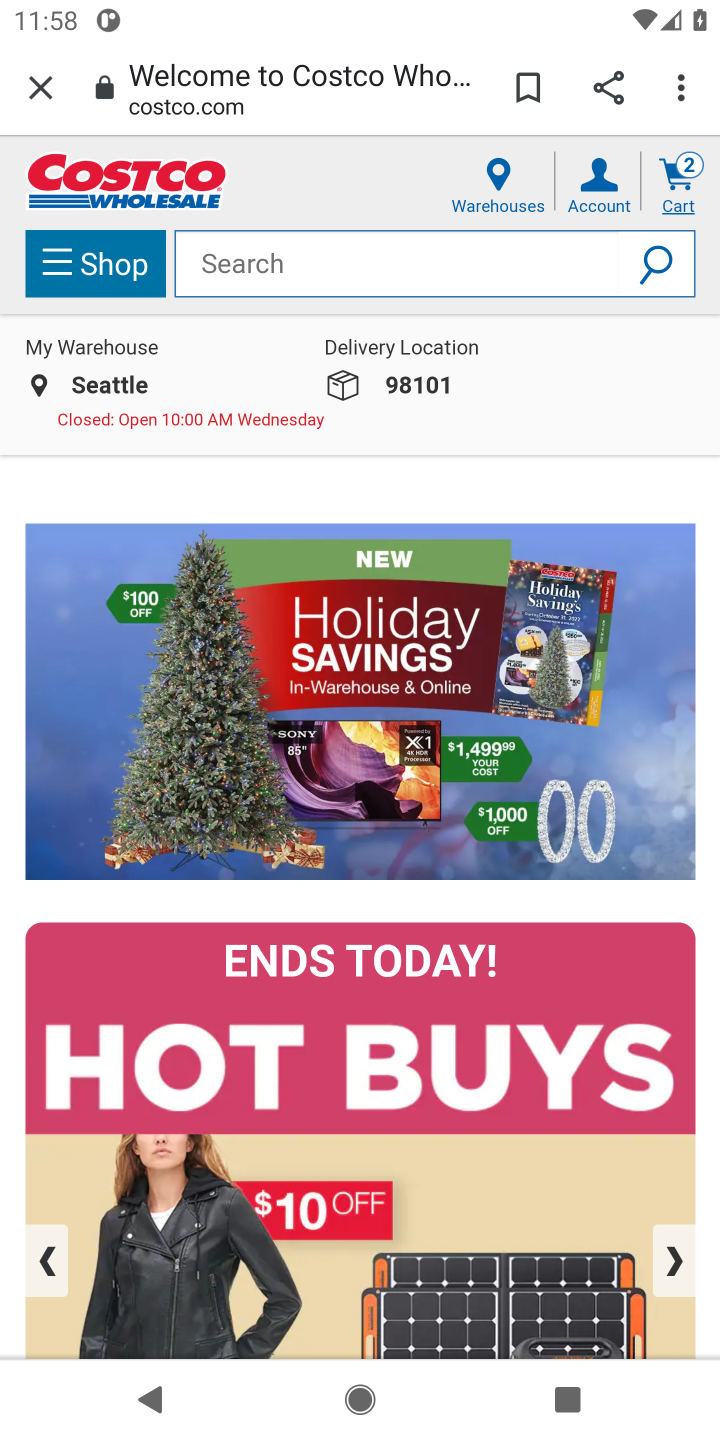
Step 30: task complete